Your task to perform on an android device: Add "razer huntsman" to the cart on costco.com Image 0: 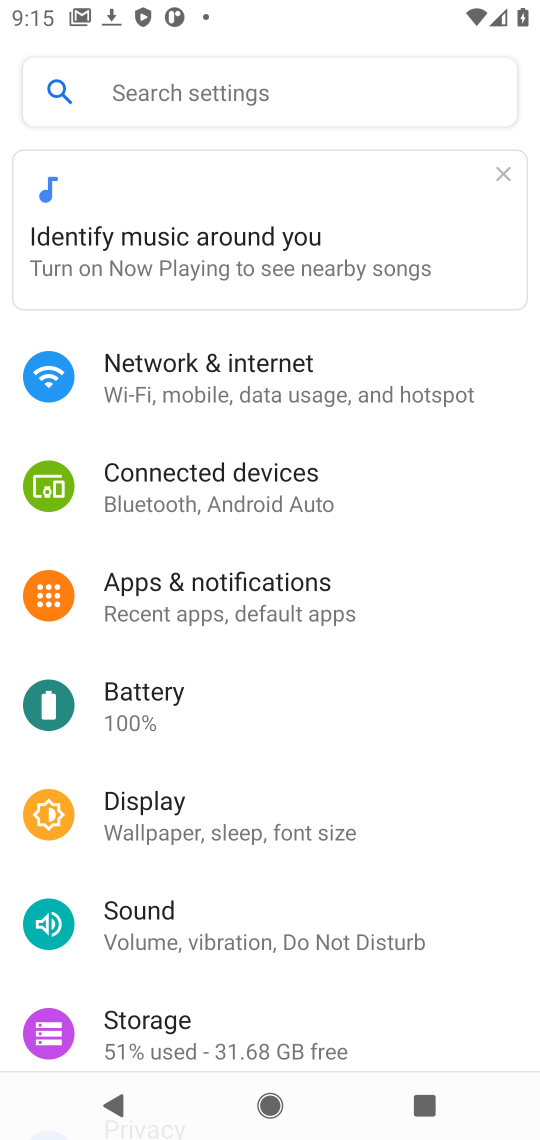
Step 0: press home button
Your task to perform on an android device: Add "razer huntsman" to the cart on costco.com Image 1: 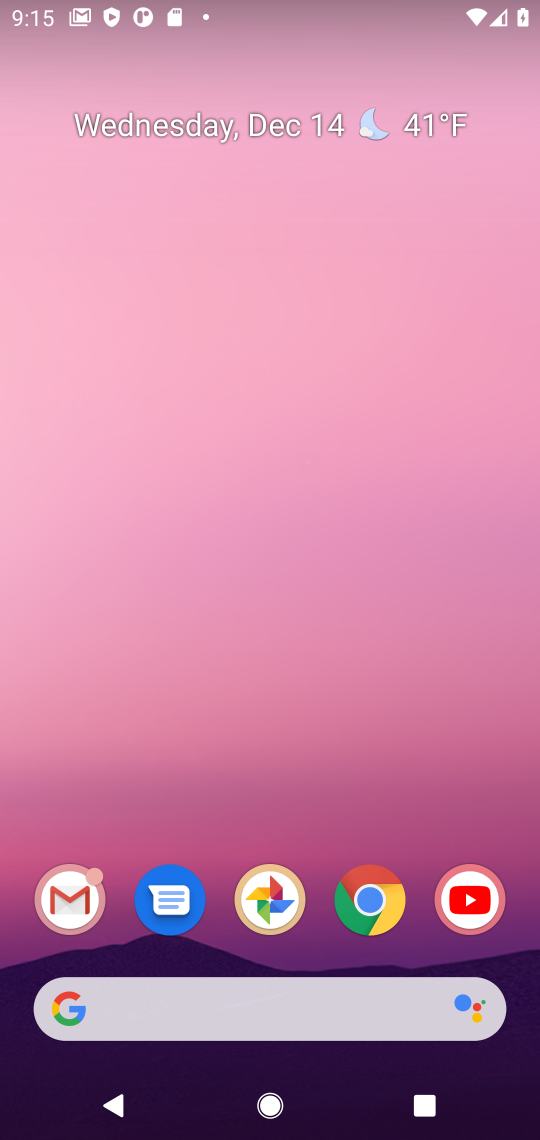
Step 1: click (379, 899)
Your task to perform on an android device: Add "razer huntsman" to the cart on costco.com Image 2: 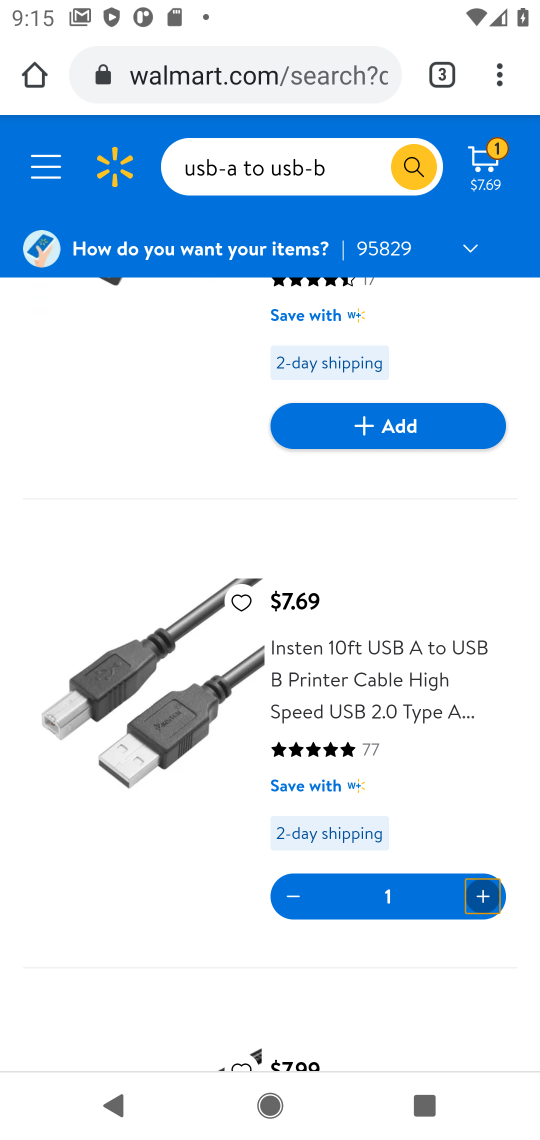
Step 2: click (227, 78)
Your task to perform on an android device: Add "razer huntsman" to the cart on costco.com Image 3: 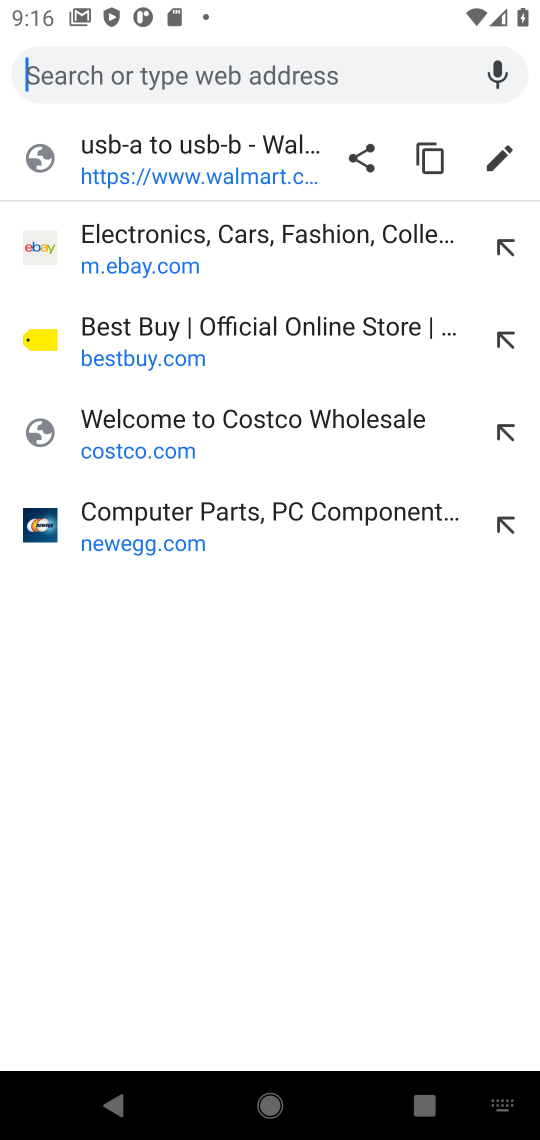
Step 3: click (136, 438)
Your task to perform on an android device: Add "razer huntsman" to the cart on costco.com Image 4: 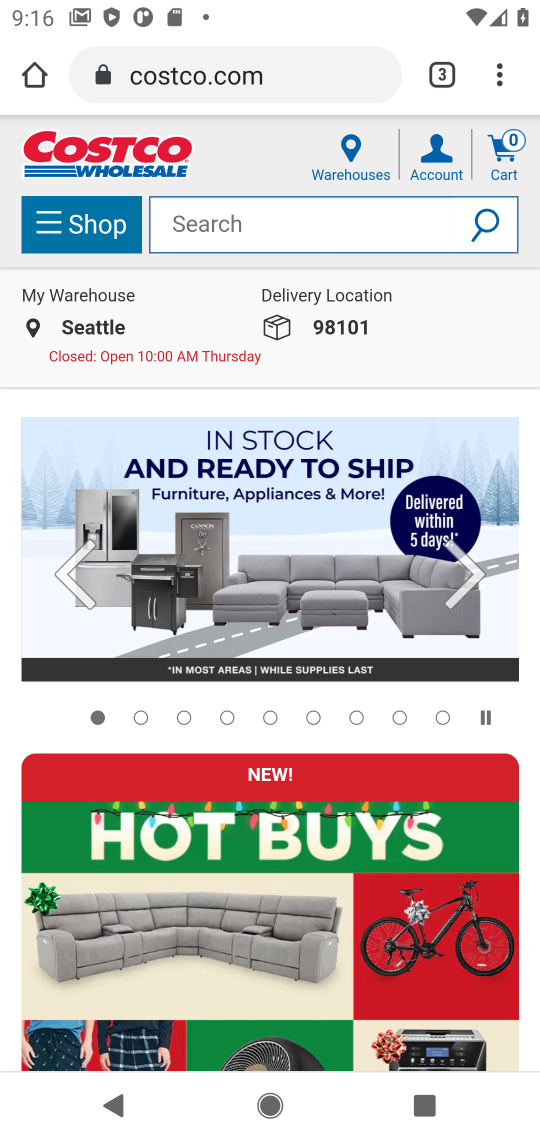
Step 4: click (187, 222)
Your task to perform on an android device: Add "razer huntsman" to the cart on costco.com Image 5: 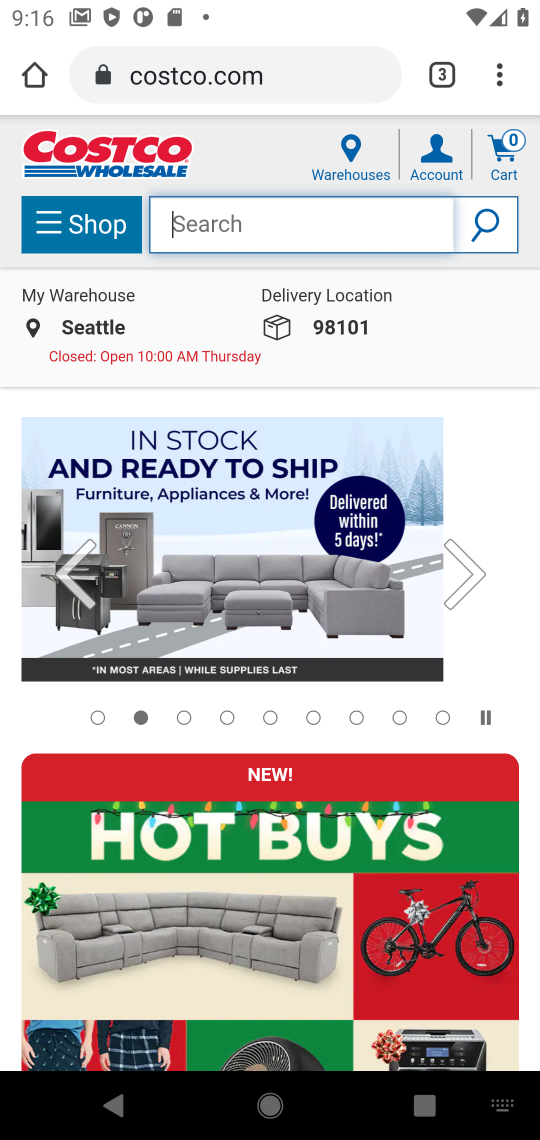
Step 5: type "razer huntsman"
Your task to perform on an android device: Add "razer huntsman" to the cart on costco.com Image 6: 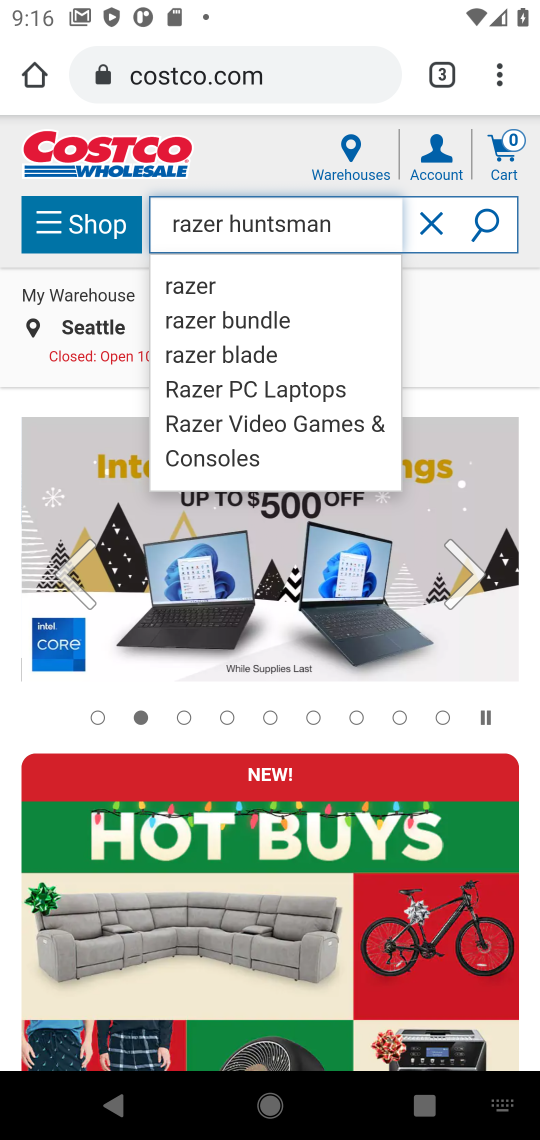
Step 6: click (486, 228)
Your task to perform on an android device: Add "razer huntsman" to the cart on costco.com Image 7: 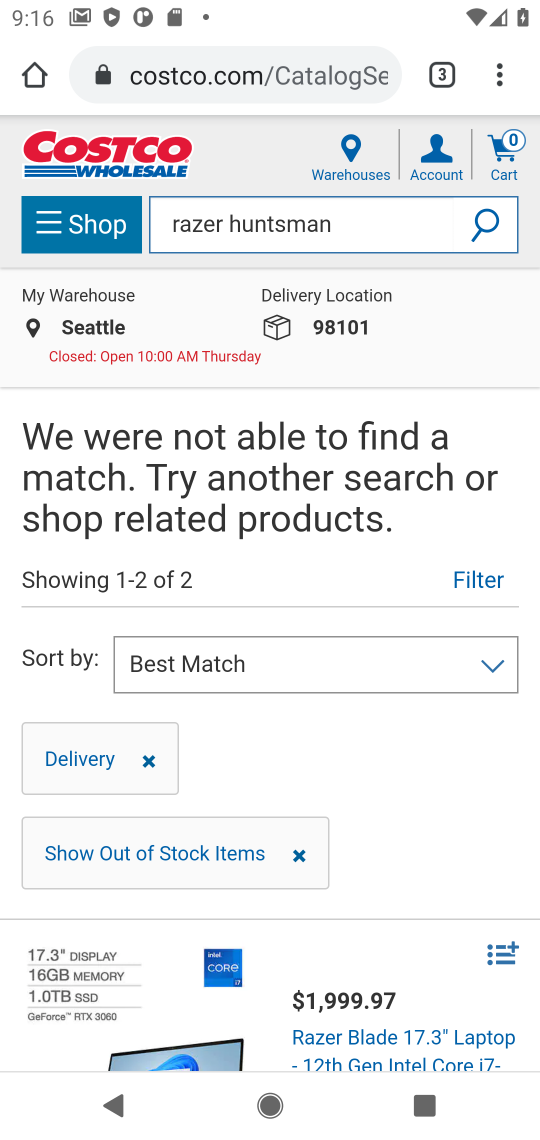
Step 7: task complete